Your task to perform on an android device: Check the news Image 0: 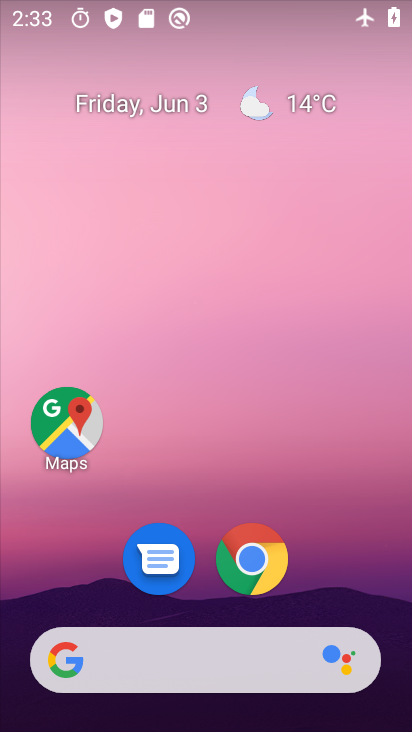
Step 0: click (259, 668)
Your task to perform on an android device: Check the news Image 1: 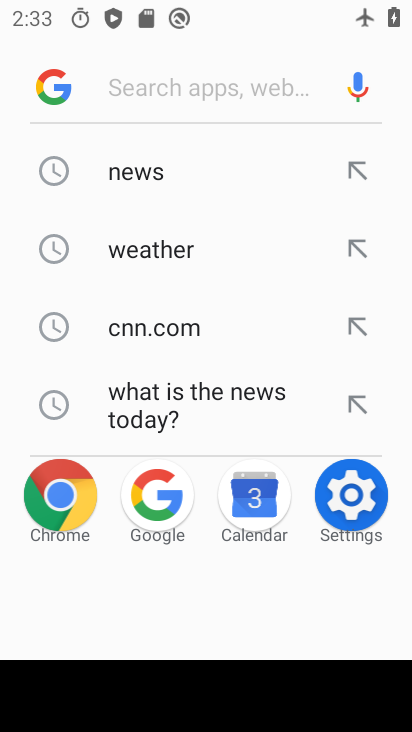
Step 1: click (166, 170)
Your task to perform on an android device: Check the news Image 2: 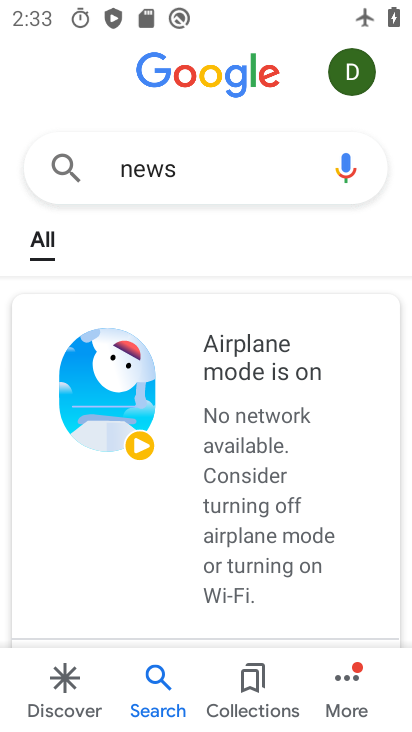
Step 2: task complete